Your task to perform on an android device: snooze an email in the gmail app Image 0: 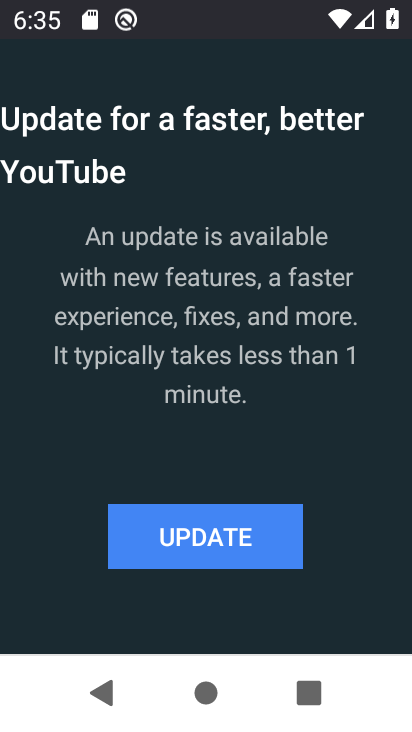
Step 0: press home button
Your task to perform on an android device: snooze an email in the gmail app Image 1: 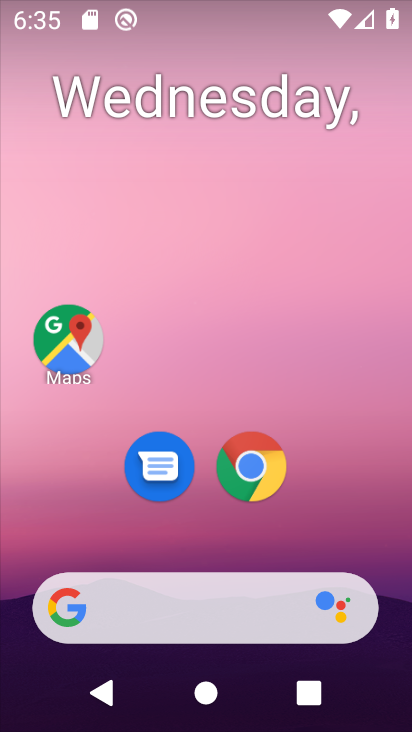
Step 1: drag from (328, 508) to (220, 18)
Your task to perform on an android device: snooze an email in the gmail app Image 2: 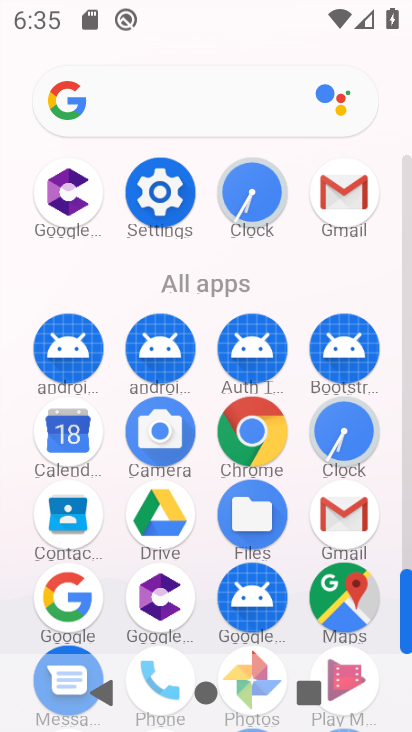
Step 2: click (346, 200)
Your task to perform on an android device: snooze an email in the gmail app Image 3: 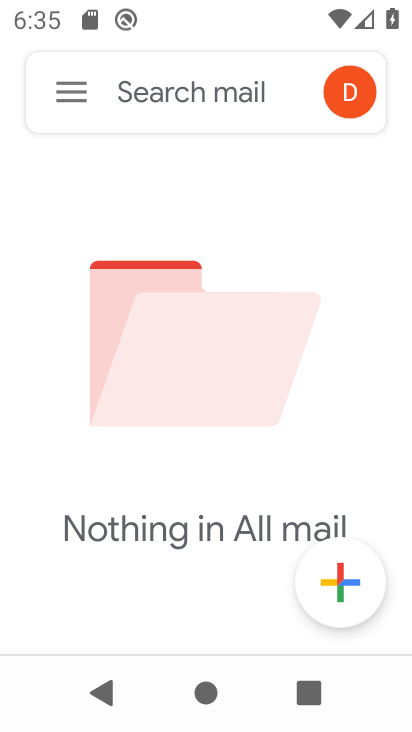
Step 3: task complete